Your task to perform on an android device: turn pop-ups on in chrome Image 0: 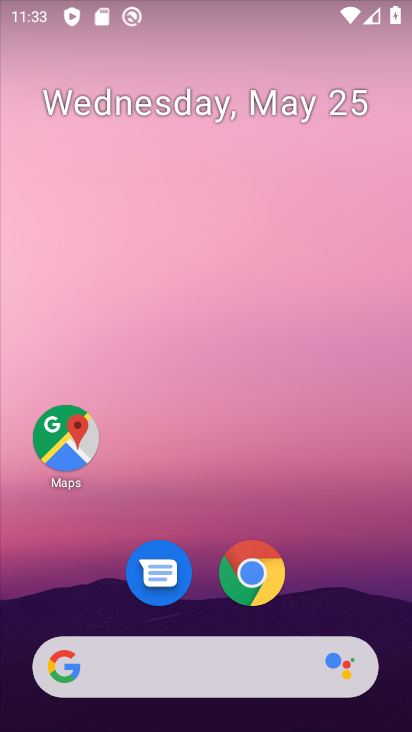
Step 0: click (250, 579)
Your task to perform on an android device: turn pop-ups on in chrome Image 1: 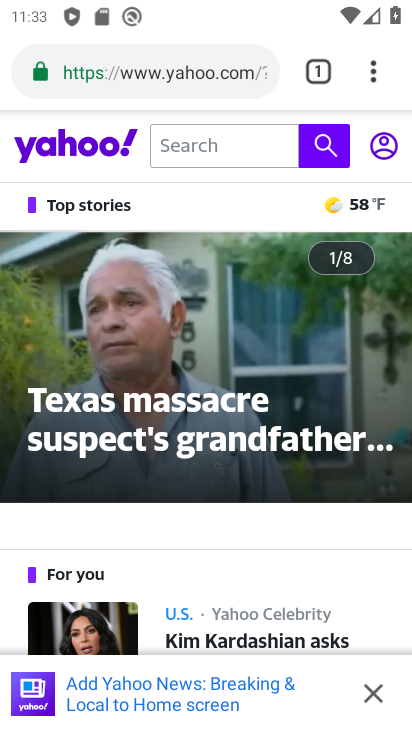
Step 1: drag from (184, 590) to (232, 47)
Your task to perform on an android device: turn pop-ups on in chrome Image 2: 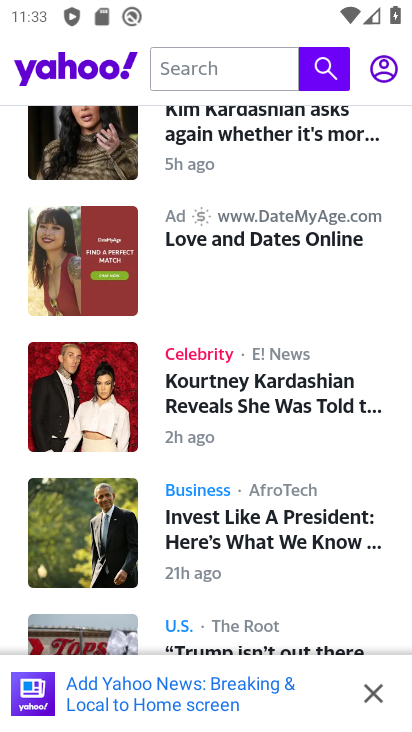
Step 2: drag from (250, 198) to (291, 685)
Your task to perform on an android device: turn pop-ups on in chrome Image 3: 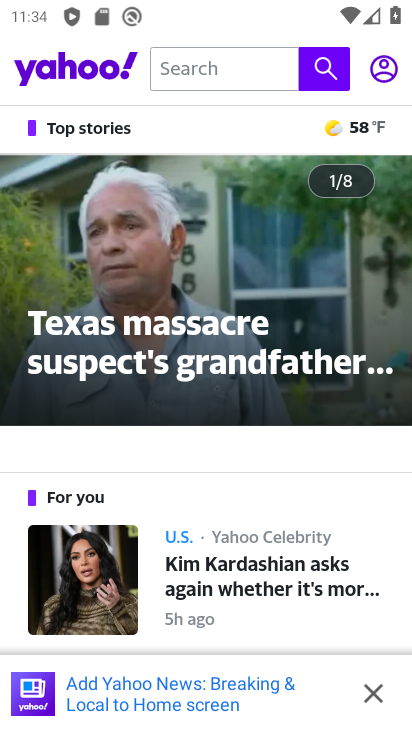
Step 3: drag from (322, 226) to (284, 612)
Your task to perform on an android device: turn pop-ups on in chrome Image 4: 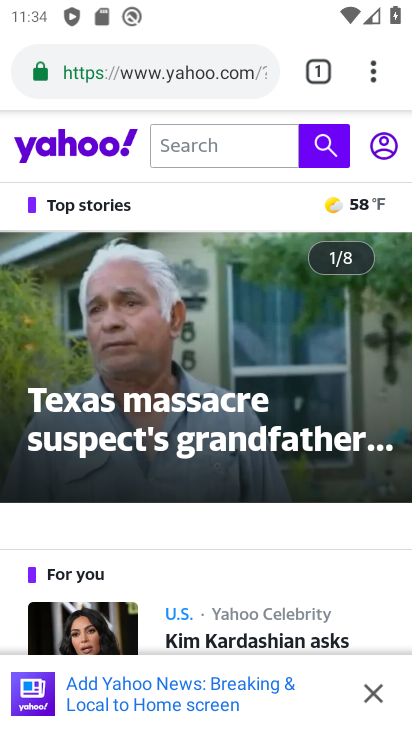
Step 4: drag from (373, 65) to (236, 552)
Your task to perform on an android device: turn pop-ups on in chrome Image 5: 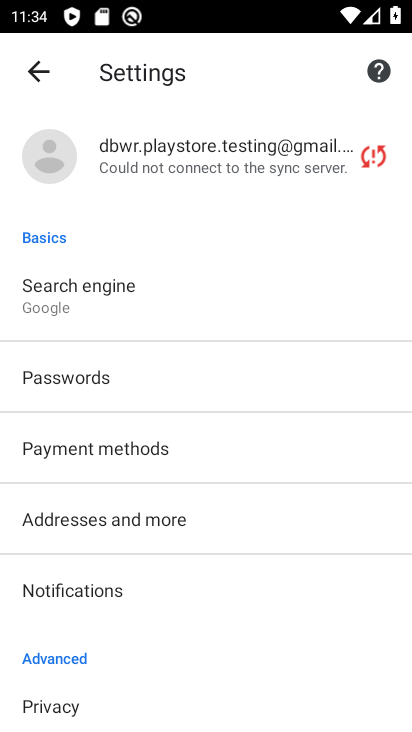
Step 5: drag from (72, 635) to (138, 126)
Your task to perform on an android device: turn pop-ups on in chrome Image 6: 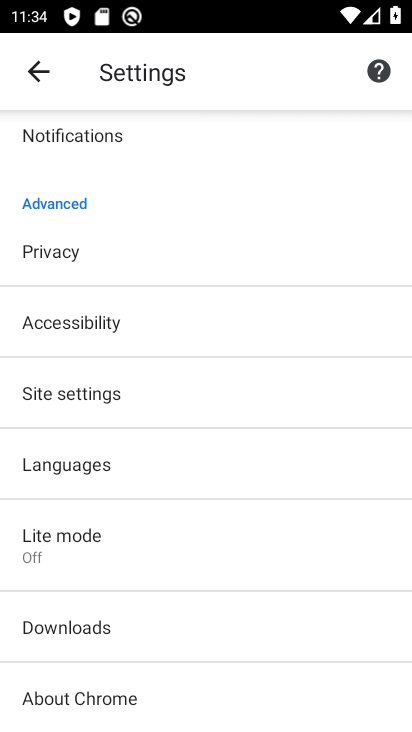
Step 6: click (48, 389)
Your task to perform on an android device: turn pop-ups on in chrome Image 7: 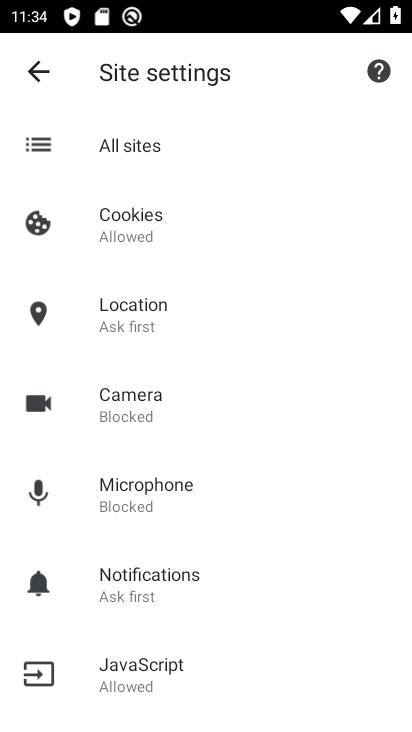
Step 7: drag from (104, 610) to (140, 129)
Your task to perform on an android device: turn pop-ups on in chrome Image 8: 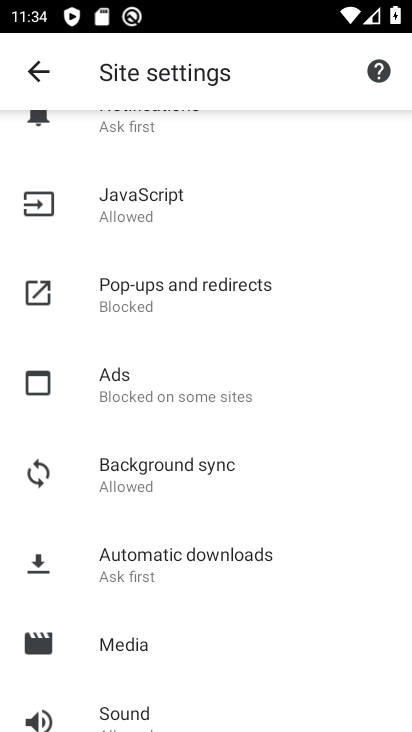
Step 8: drag from (140, 205) to (149, 489)
Your task to perform on an android device: turn pop-ups on in chrome Image 9: 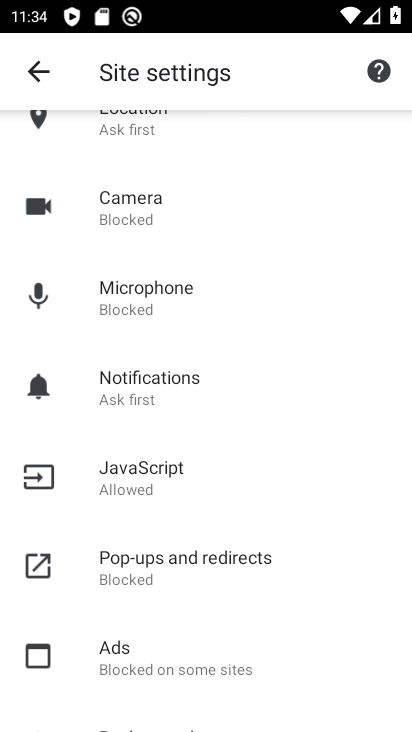
Step 9: click (109, 561)
Your task to perform on an android device: turn pop-ups on in chrome Image 10: 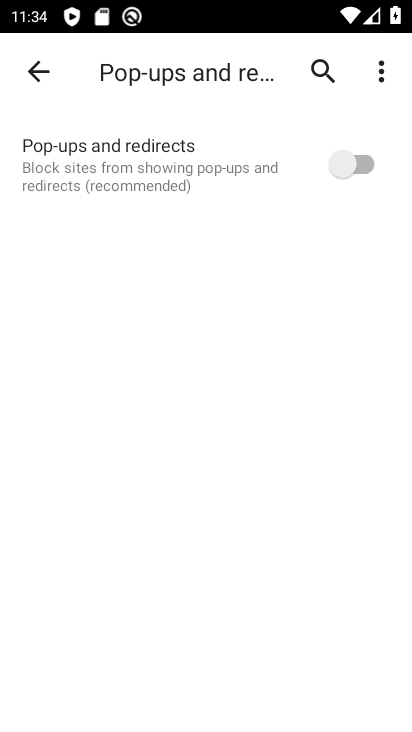
Step 10: click (367, 161)
Your task to perform on an android device: turn pop-ups on in chrome Image 11: 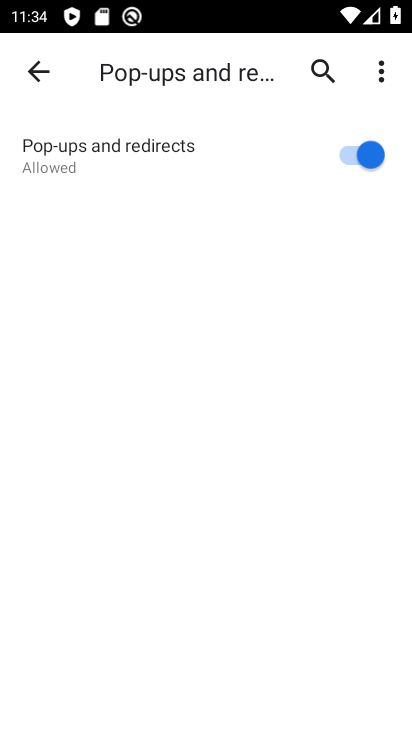
Step 11: task complete